Your task to perform on an android device: Open Google Maps and go to "Timeline" Image 0: 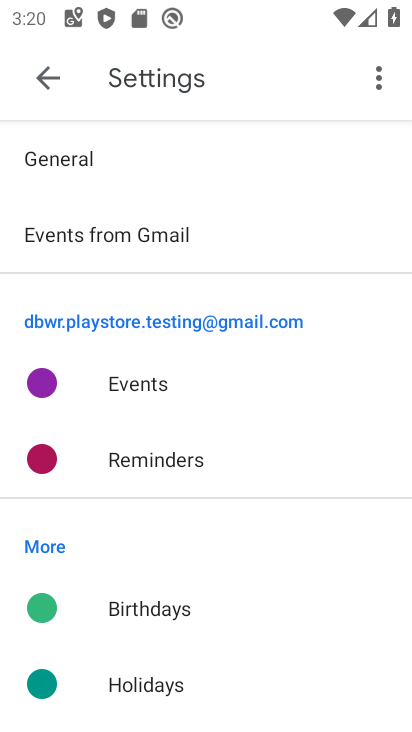
Step 0: press home button
Your task to perform on an android device: Open Google Maps and go to "Timeline" Image 1: 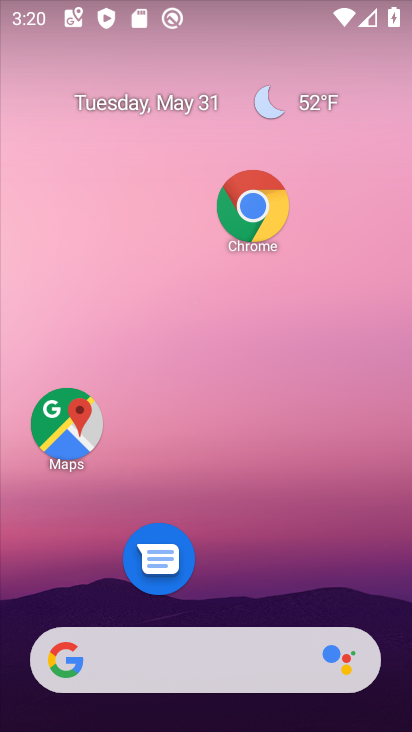
Step 1: click (72, 459)
Your task to perform on an android device: Open Google Maps and go to "Timeline" Image 2: 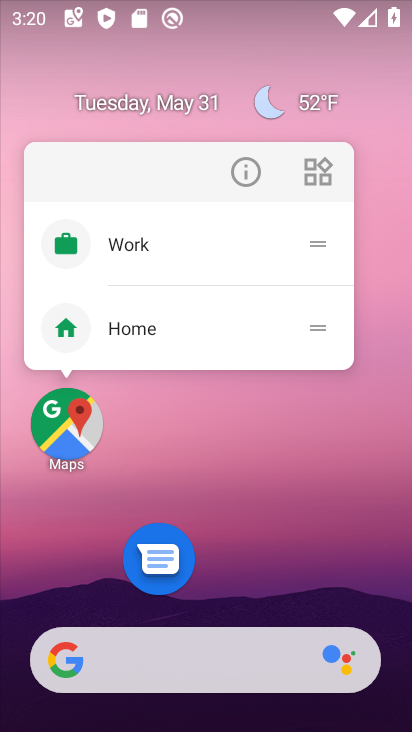
Step 2: click (76, 437)
Your task to perform on an android device: Open Google Maps and go to "Timeline" Image 3: 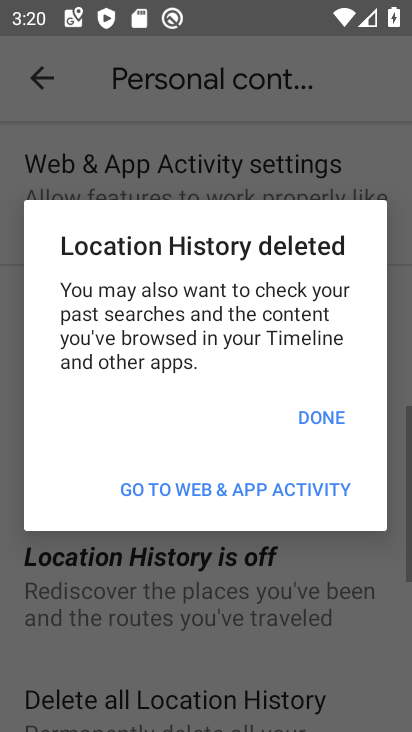
Step 3: click (303, 419)
Your task to perform on an android device: Open Google Maps and go to "Timeline" Image 4: 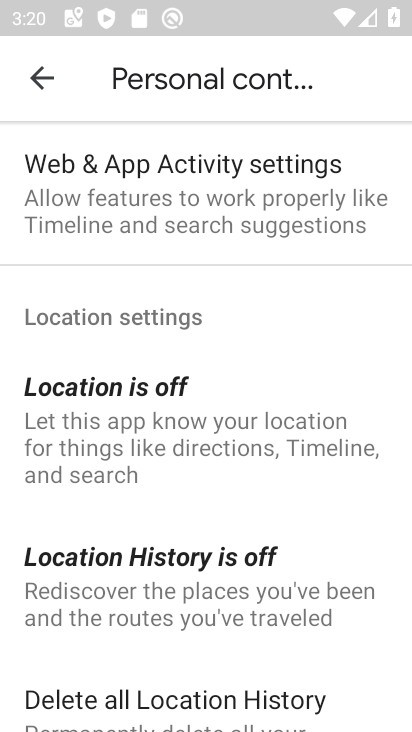
Step 4: click (35, 82)
Your task to perform on an android device: Open Google Maps and go to "Timeline" Image 5: 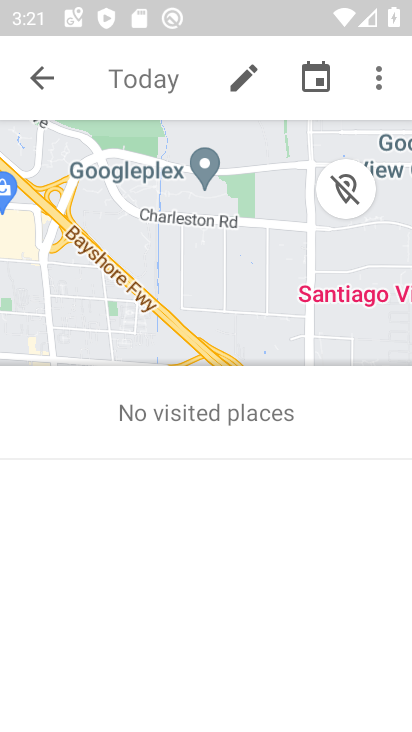
Step 5: click (35, 82)
Your task to perform on an android device: Open Google Maps and go to "Timeline" Image 6: 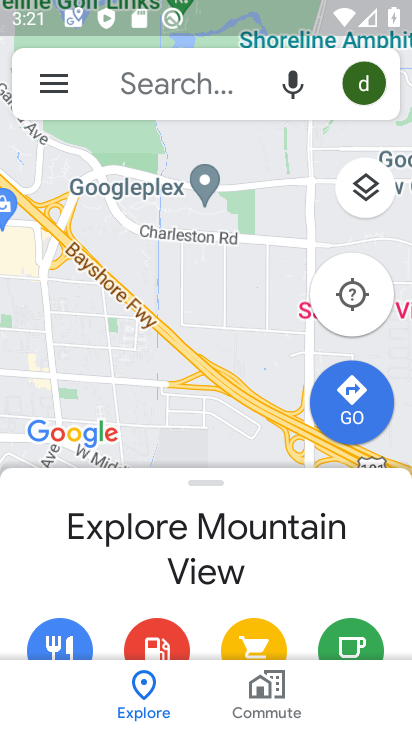
Step 6: click (35, 82)
Your task to perform on an android device: Open Google Maps and go to "Timeline" Image 7: 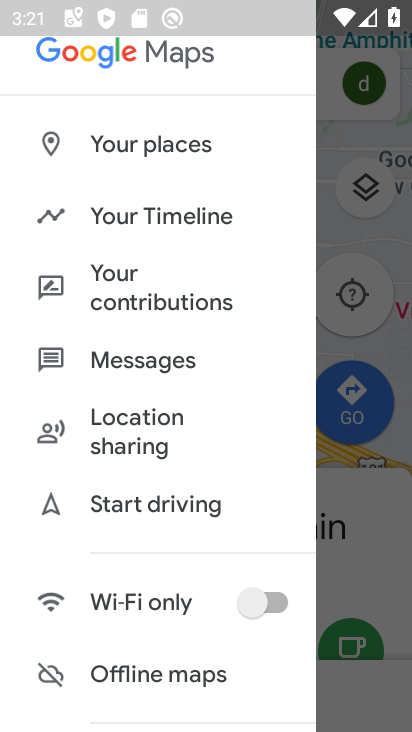
Step 7: click (128, 218)
Your task to perform on an android device: Open Google Maps and go to "Timeline" Image 8: 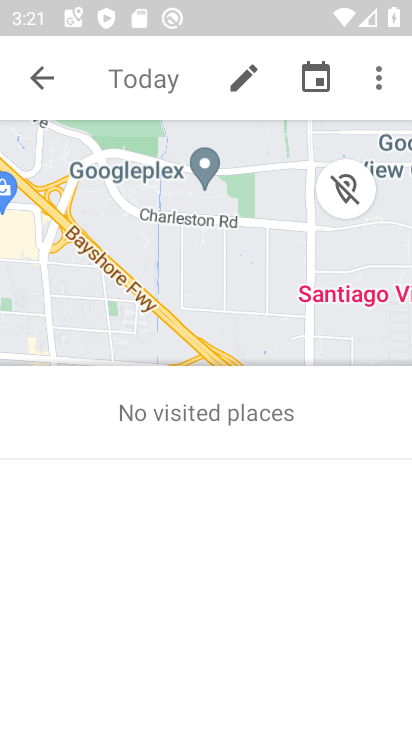
Step 8: task complete